Your task to perform on an android device: Open Android settings Image 0: 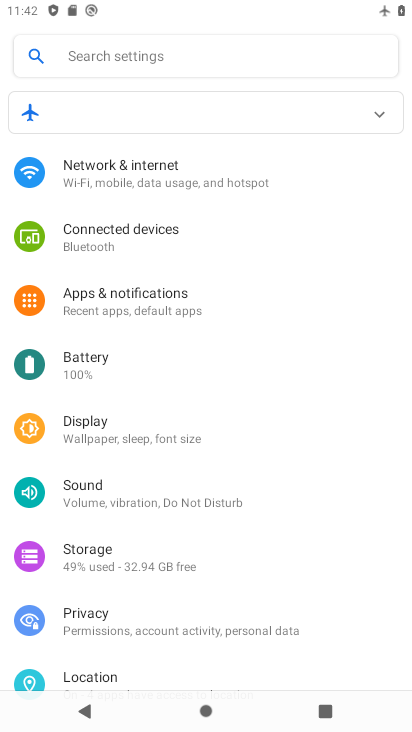
Step 0: task complete